Your task to perform on an android device: Check the weather Image 0: 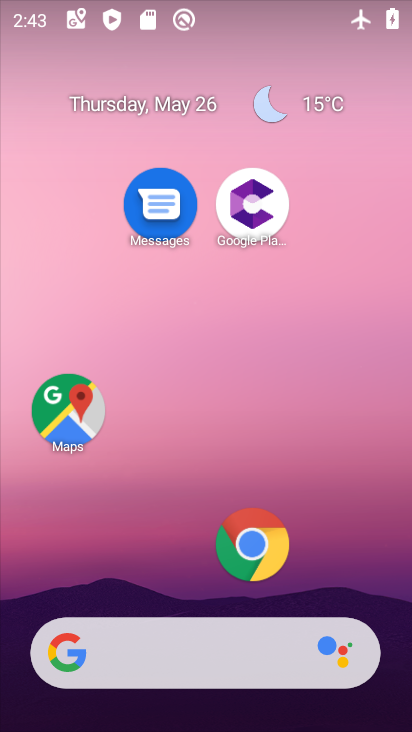
Step 0: click (333, 99)
Your task to perform on an android device: Check the weather Image 1: 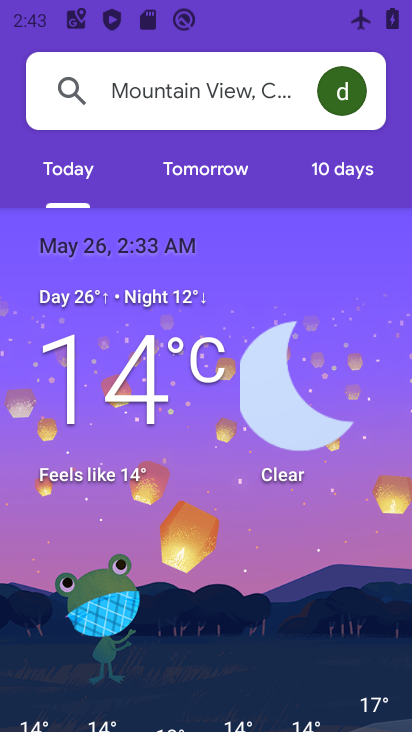
Step 1: task complete